Your task to perform on an android device: turn off smart reply in the gmail app Image 0: 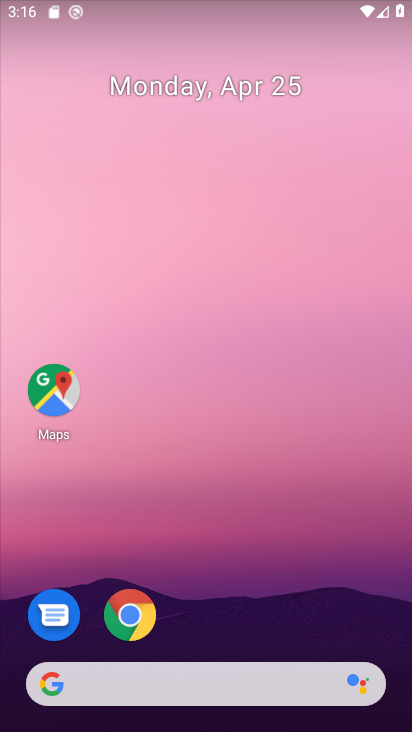
Step 0: drag from (139, 660) to (261, 110)
Your task to perform on an android device: turn off smart reply in the gmail app Image 1: 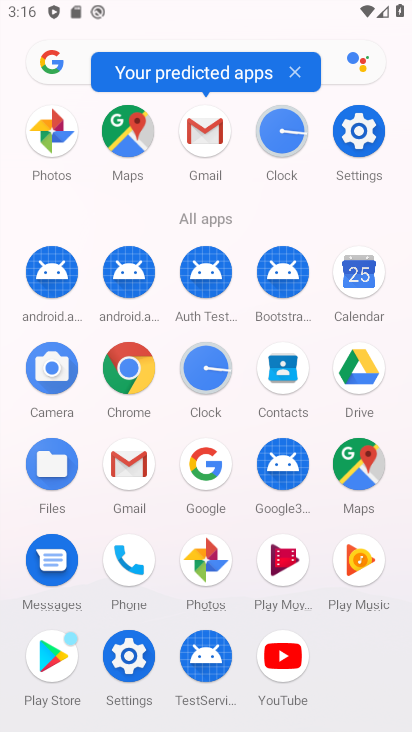
Step 1: click (134, 469)
Your task to perform on an android device: turn off smart reply in the gmail app Image 2: 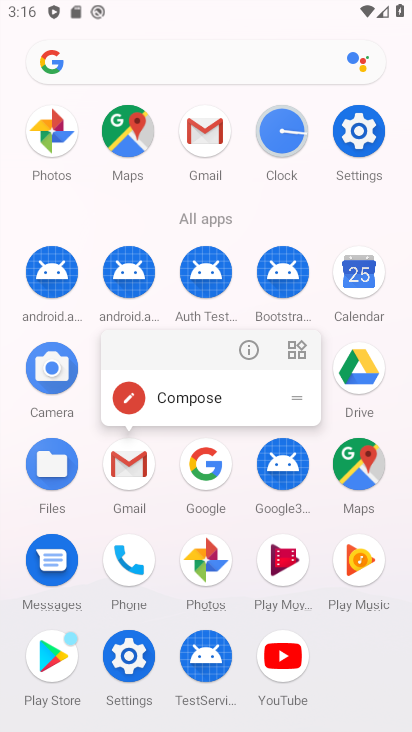
Step 2: click (134, 471)
Your task to perform on an android device: turn off smart reply in the gmail app Image 3: 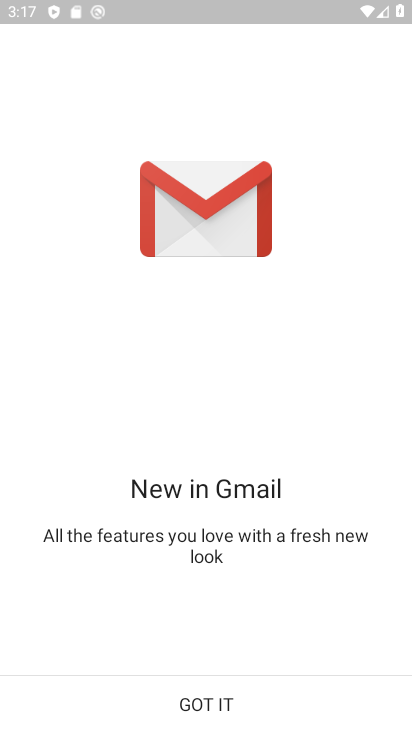
Step 3: click (259, 695)
Your task to perform on an android device: turn off smart reply in the gmail app Image 4: 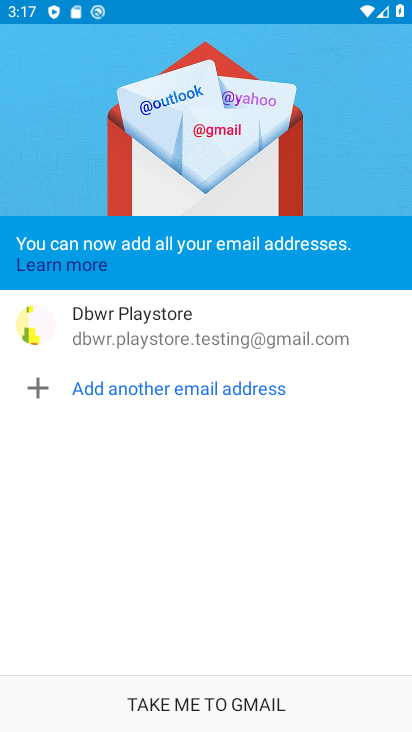
Step 4: click (245, 706)
Your task to perform on an android device: turn off smart reply in the gmail app Image 5: 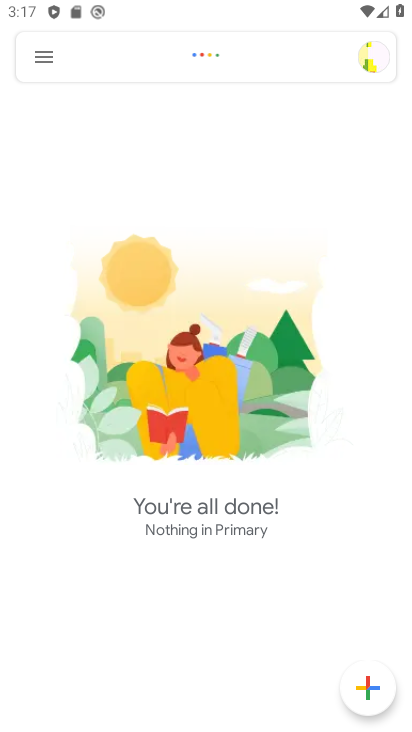
Step 5: click (38, 60)
Your task to perform on an android device: turn off smart reply in the gmail app Image 6: 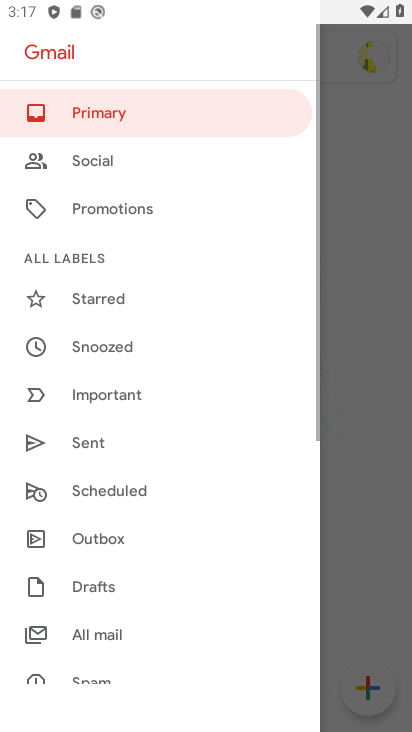
Step 6: drag from (105, 574) to (208, 145)
Your task to perform on an android device: turn off smart reply in the gmail app Image 7: 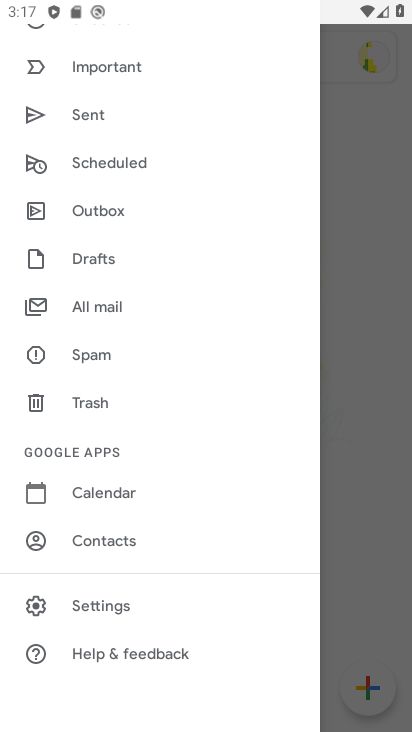
Step 7: click (141, 608)
Your task to perform on an android device: turn off smart reply in the gmail app Image 8: 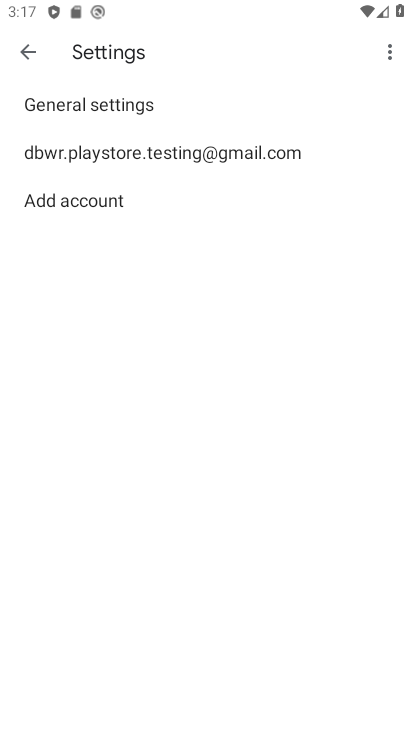
Step 8: click (271, 154)
Your task to perform on an android device: turn off smart reply in the gmail app Image 9: 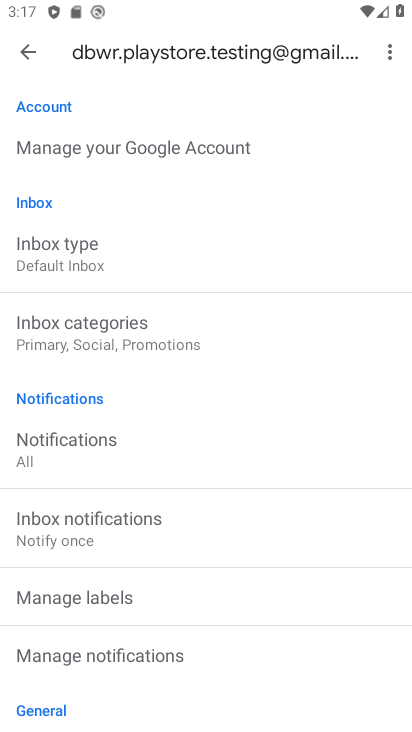
Step 9: drag from (184, 643) to (266, 185)
Your task to perform on an android device: turn off smart reply in the gmail app Image 10: 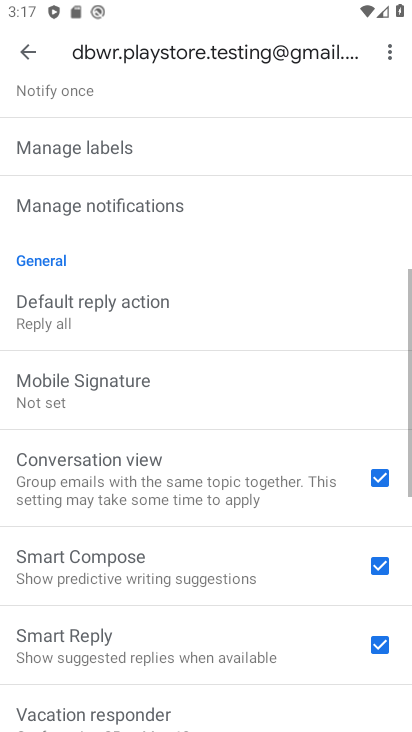
Step 10: drag from (149, 546) to (213, 309)
Your task to perform on an android device: turn off smart reply in the gmail app Image 11: 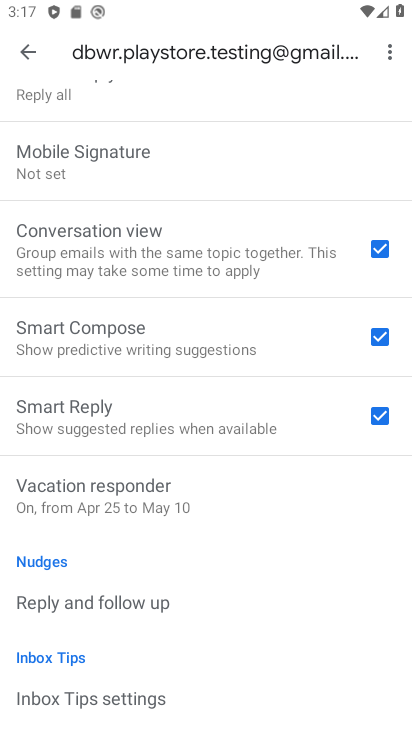
Step 11: click (375, 422)
Your task to perform on an android device: turn off smart reply in the gmail app Image 12: 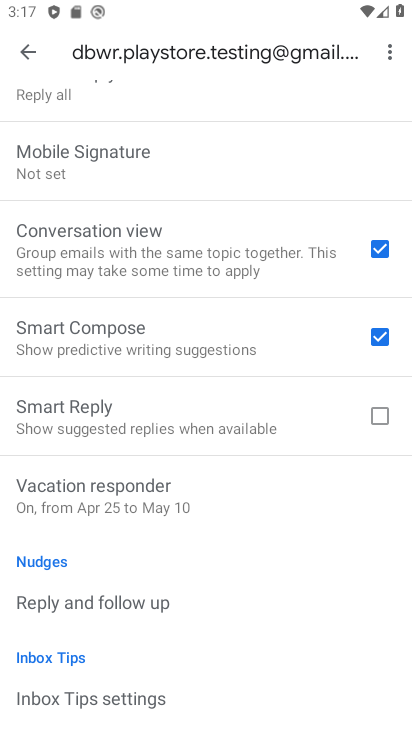
Step 12: task complete